Your task to perform on an android device: Search for pizza restaurants on Maps Image 0: 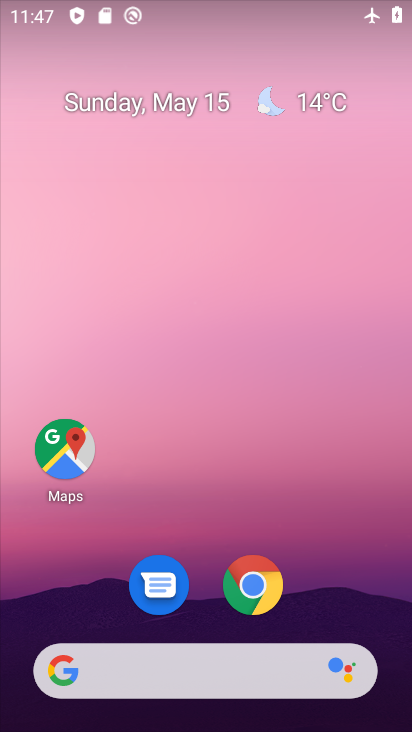
Step 0: click (62, 437)
Your task to perform on an android device: Search for pizza restaurants on Maps Image 1: 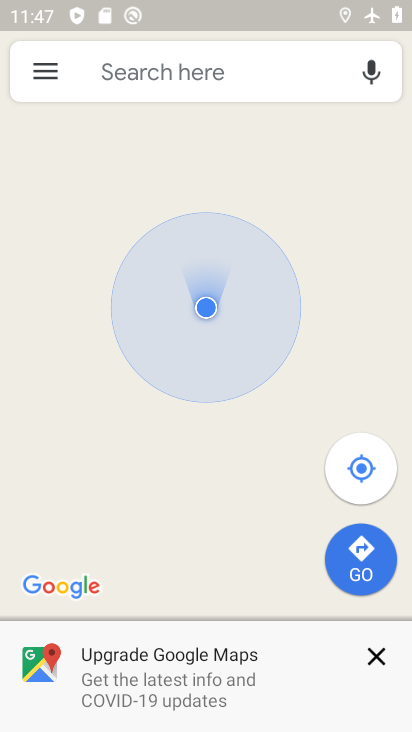
Step 1: click (252, 64)
Your task to perform on an android device: Search for pizza restaurants on Maps Image 2: 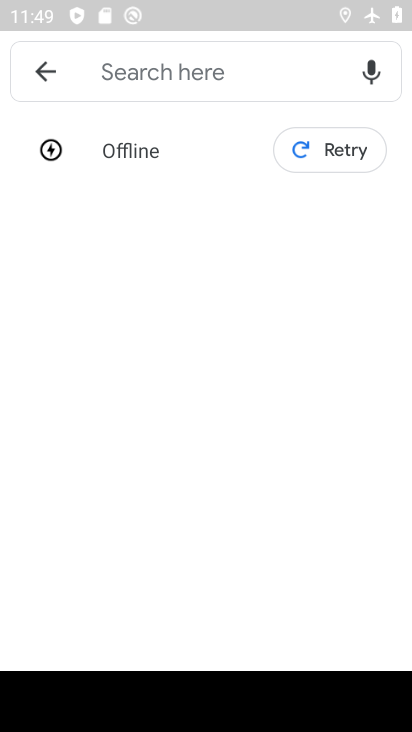
Step 2: task complete